Your task to perform on an android device: Open the phone app and click the voicemail tab. Image 0: 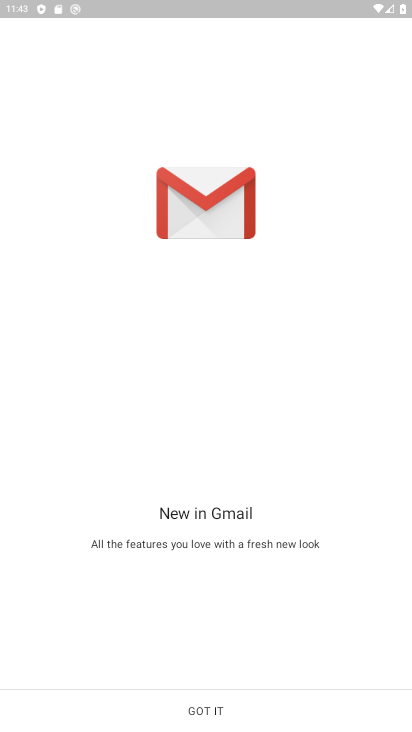
Step 0: click (214, 712)
Your task to perform on an android device: Open the phone app and click the voicemail tab. Image 1: 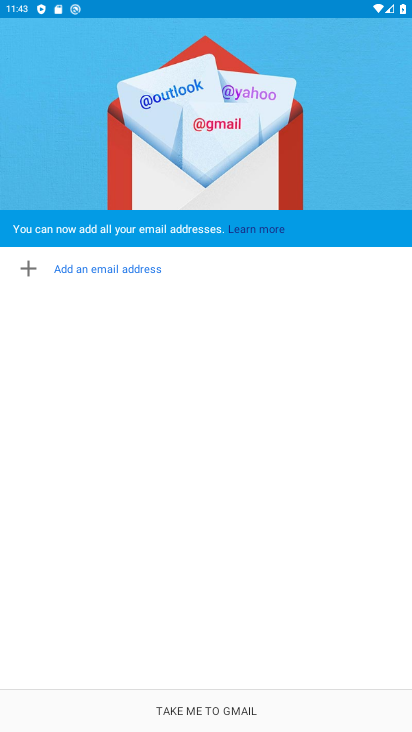
Step 1: click (215, 712)
Your task to perform on an android device: Open the phone app and click the voicemail tab. Image 2: 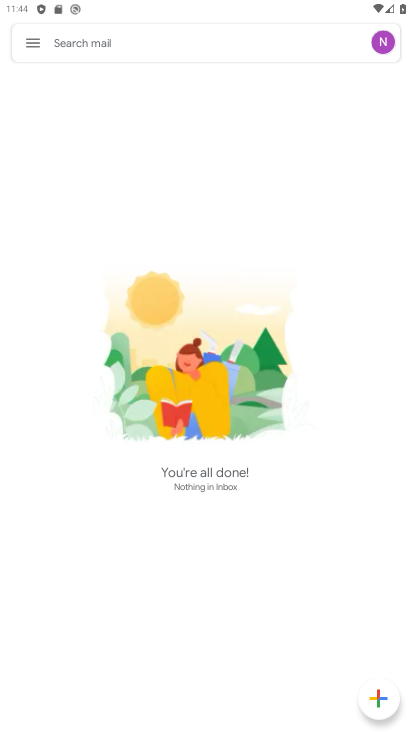
Step 2: click (33, 44)
Your task to perform on an android device: Open the phone app and click the voicemail tab. Image 3: 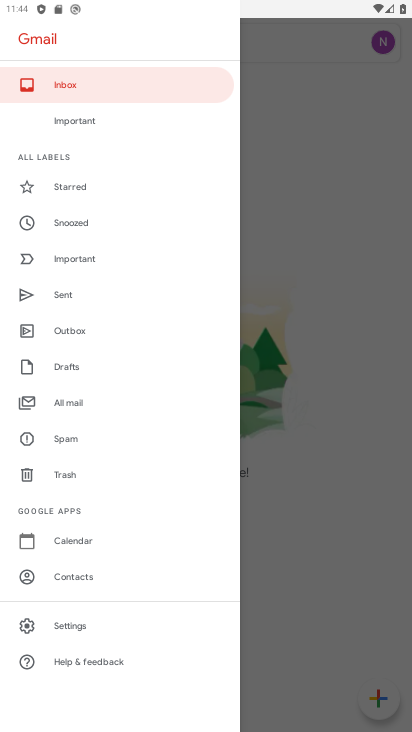
Step 3: press home button
Your task to perform on an android device: Open the phone app and click the voicemail tab. Image 4: 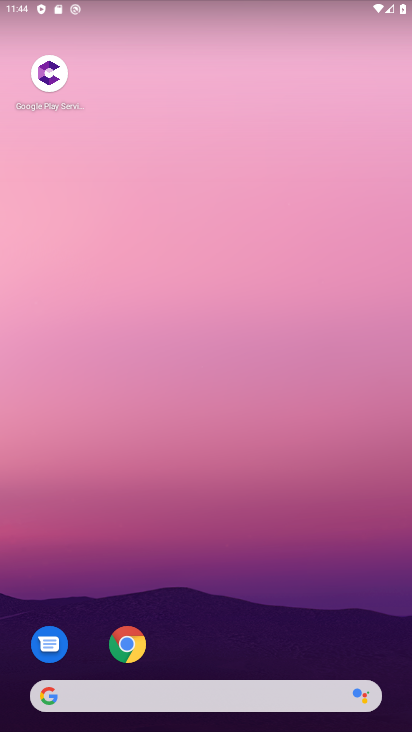
Step 4: drag from (229, 615) to (233, 99)
Your task to perform on an android device: Open the phone app and click the voicemail tab. Image 5: 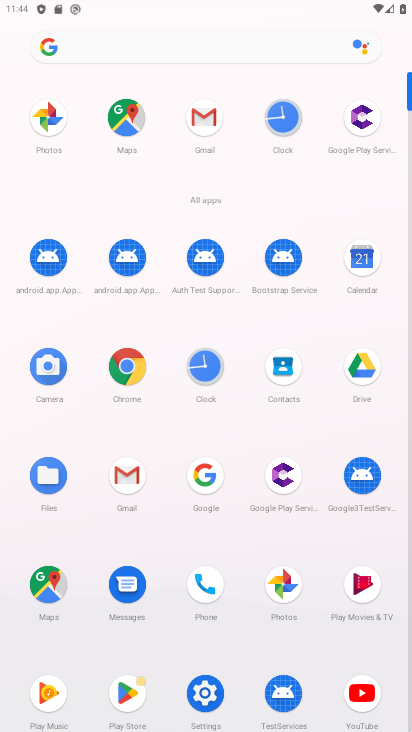
Step 5: click (207, 589)
Your task to perform on an android device: Open the phone app and click the voicemail tab. Image 6: 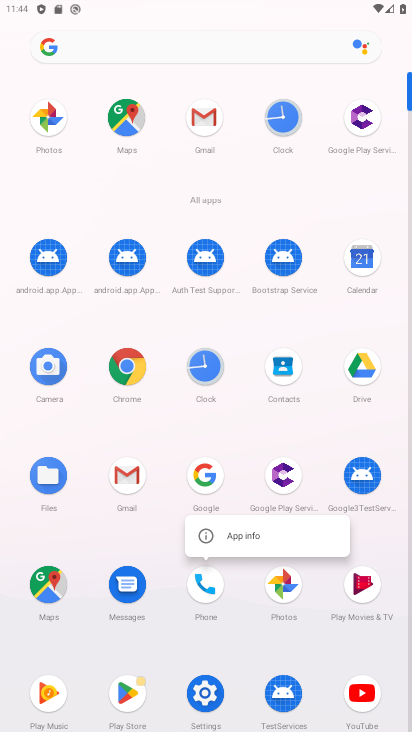
Step 6: click (211, 598)
Your task to perform on an android device: Open the phone app and click the voicemail tab. Image 7: 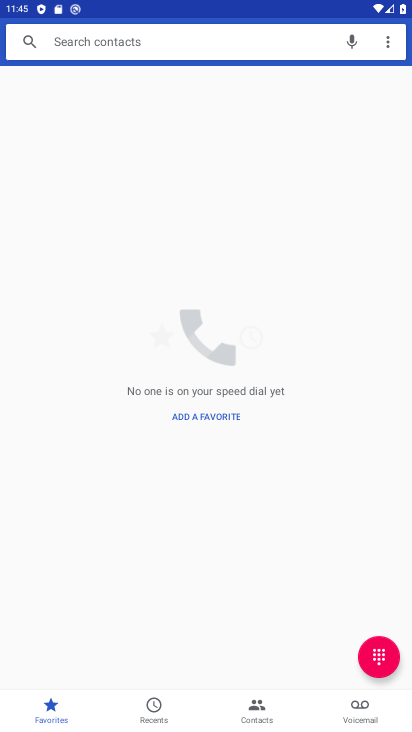
Step 7: click (369, 702)
Your task to perform on an android device: Open the phone app and click the voicemail tab. Image 8: 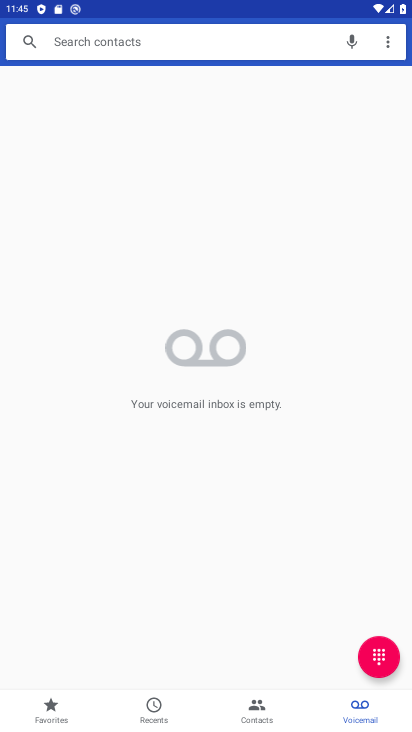
Step 8: task complete